Your task to perform on an android device: read, delete, or share a saved page in the chrome app Image 0: 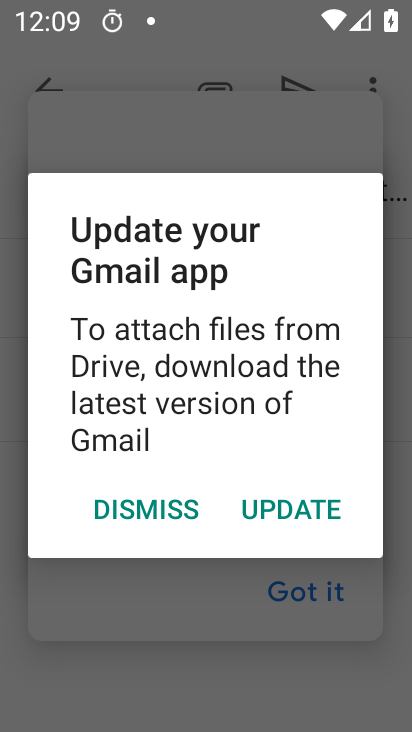
Step 0: press home button
Your task to perform on an android device: read, delete, or share a saved page in the chrome app Image 1: 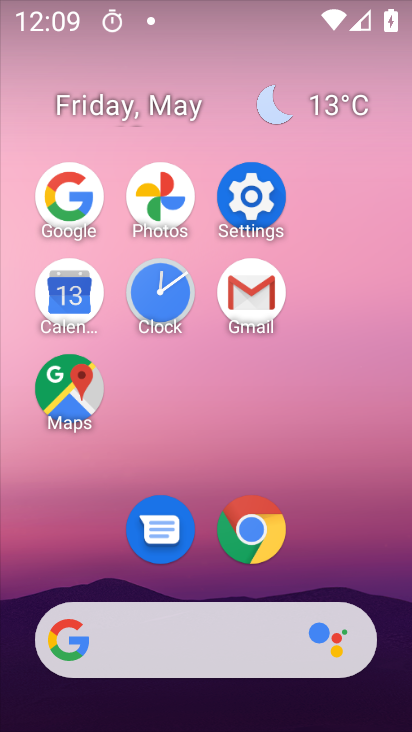
Step 1: click (270, 538)
Your task to perform on an android device: read, delete, or share a saved page in the chrome app Image 2: 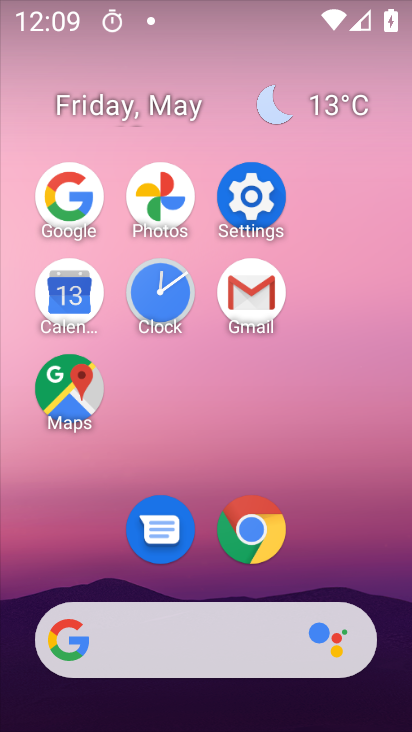
Step 2: click (252, 541)
Your task to perform on an android device: read, delete, or share a saved page in the chrome app Image 3: 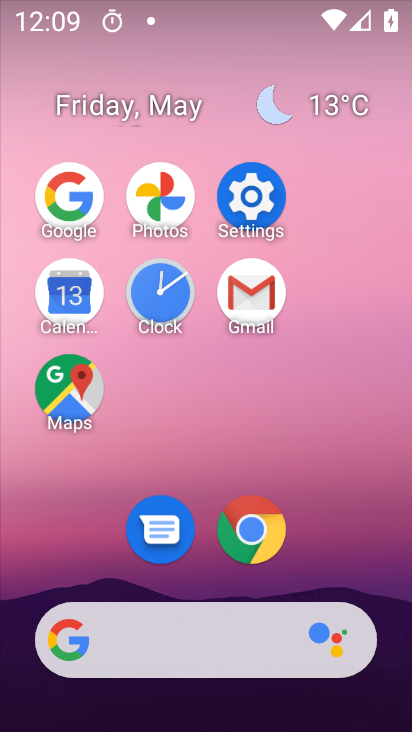
Step 3: click (271, 521)
Your task to perform on an android device: read, delete, or share a saved page in the chrome app Image 4: 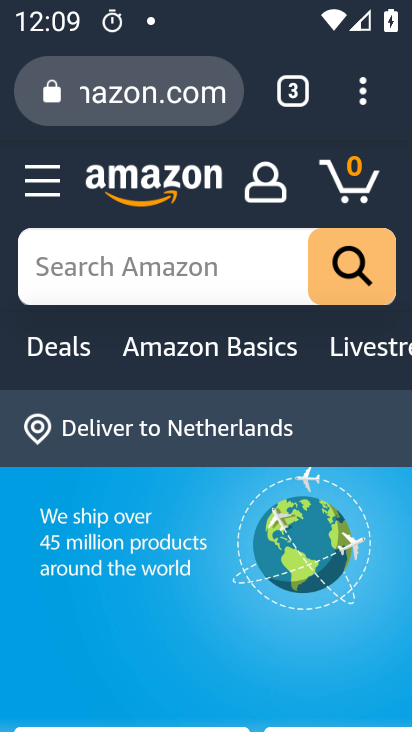
Step 4: click (374, 99)
Your task to perform on an android device: read, delete, or share a saved page in the chrome app Image 5: 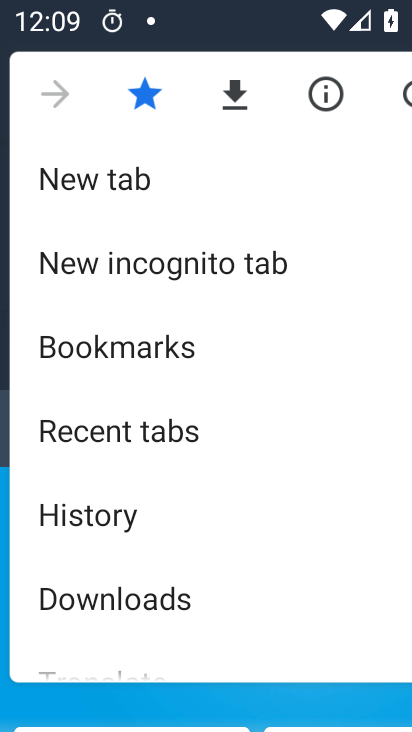
Step 5: drag from (188, 487) to (212, 171)
Your task to perform on an android device: read, delete, or share a saved page in the chrome app Image 6: 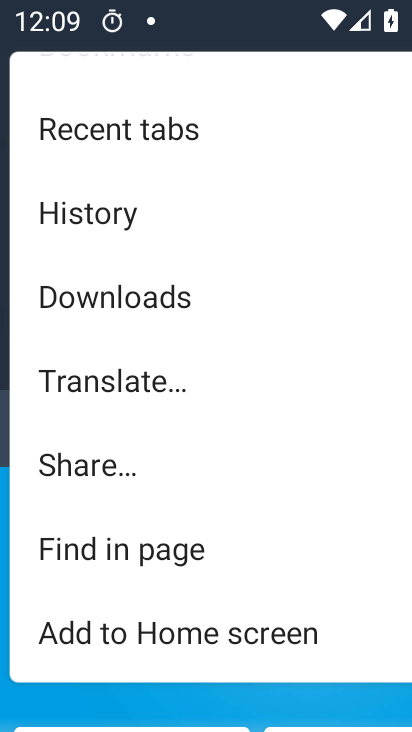
Step 6: click (180, 292)
Your task to perform on an android device: read, delete, or share a saved page in the chrome app Image 7: 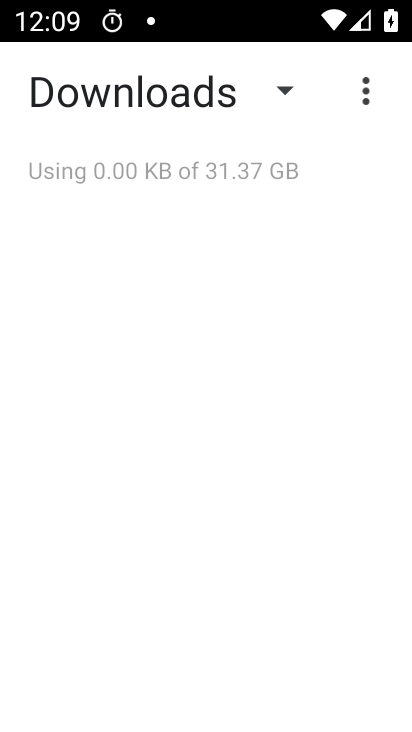
Step 7: task complete